Your task to perform on an android device: Search for vegetarian restaurants on Maps Image 0: 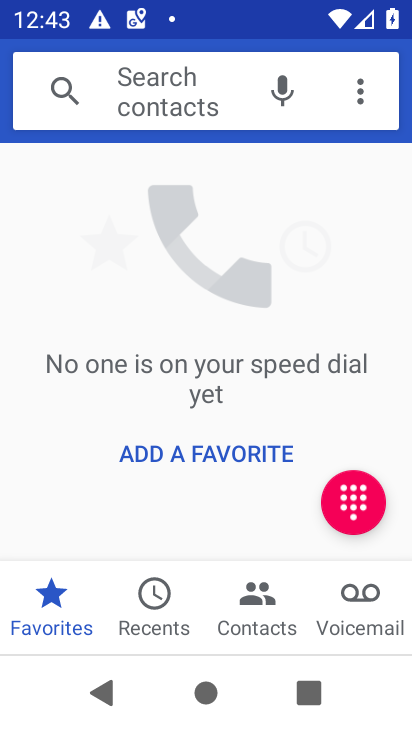
Step 0: press home button
Your task to perform on an android device: Search for vegetarian restaurants on Maps Image 1: 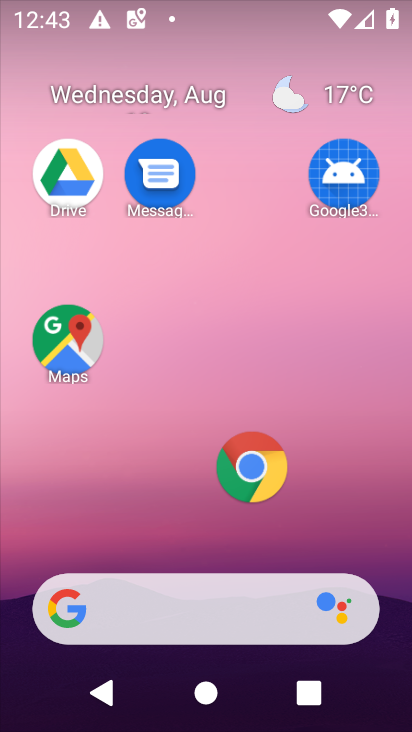
Step 1: click (83, 321)
Your task to perform on an android device: Search for vegetarian restaurants on Maps Image 2: 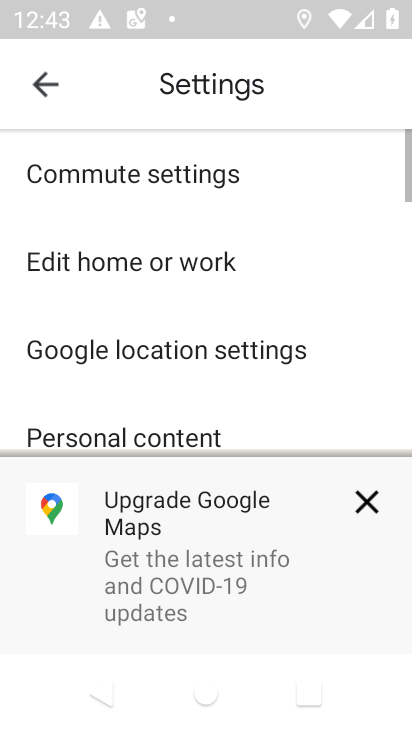
Step 2: click (59, 92)
Your task to perform on an android device: Search for vegetarian restaurants on Maps Image 3: 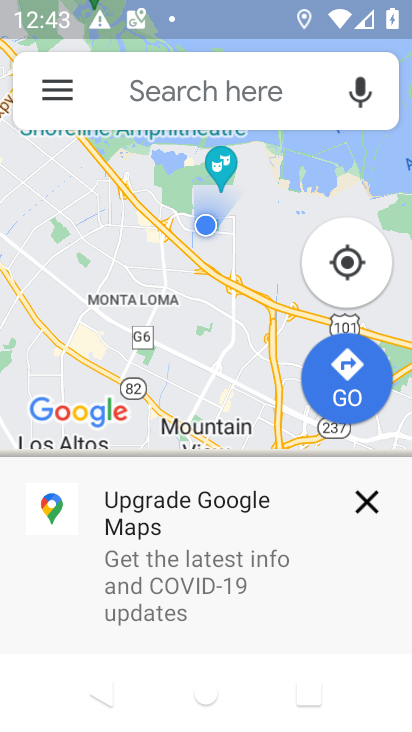
Step 3: click (150, 93)
Your task to perform on an android device: Search for vegetarian restaurants on Maps Image 4: 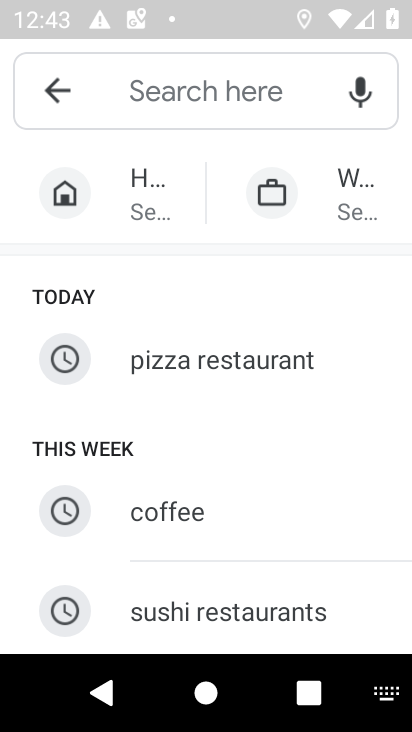
Step 4: type "vegetarian"
Your task to perform on an android device: Search for vegetarian restaurants on Maps Image 5: 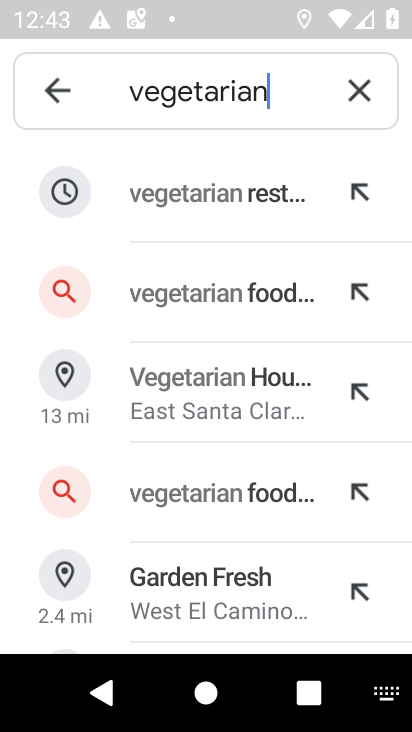
Step 5: click (301, 184)
Your task to perform on an android device: Search for vegetarian restaurants on Maps Image 6: 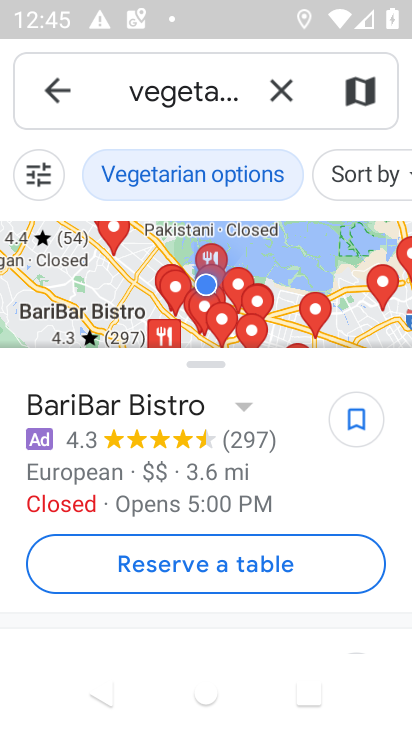
Step 6: task complete